Your task to perform on an android device: What's the weather? Image 0: 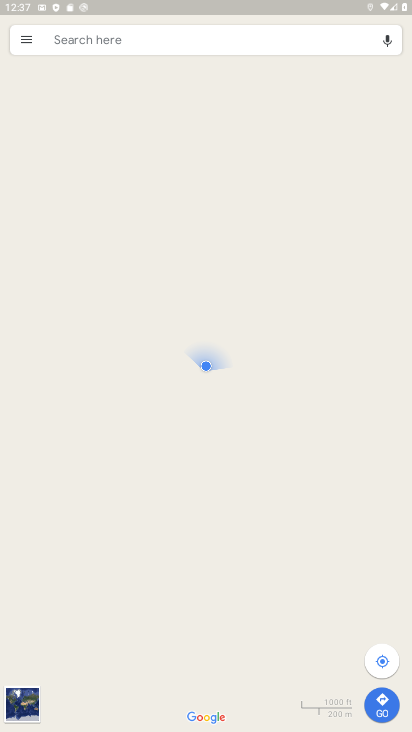
Step 0: press home button
Your task to perform on an android device: What's the weather? Image 1: 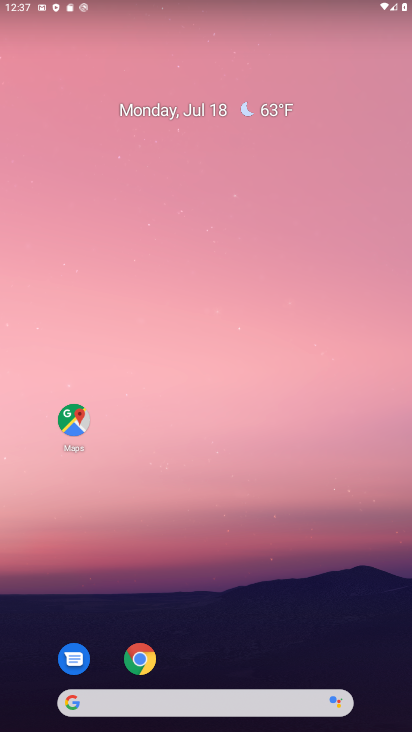
Step 1: drag from (187, 698) to (208, 299)
Your task to perform on an android device: What's the weather? Image 2: 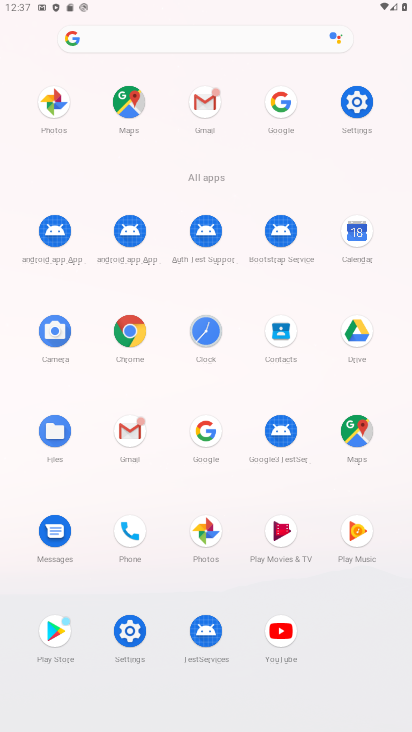
Step 2: click (276, 105)
Your task to perform on an android device: What's the weather? Image 3: 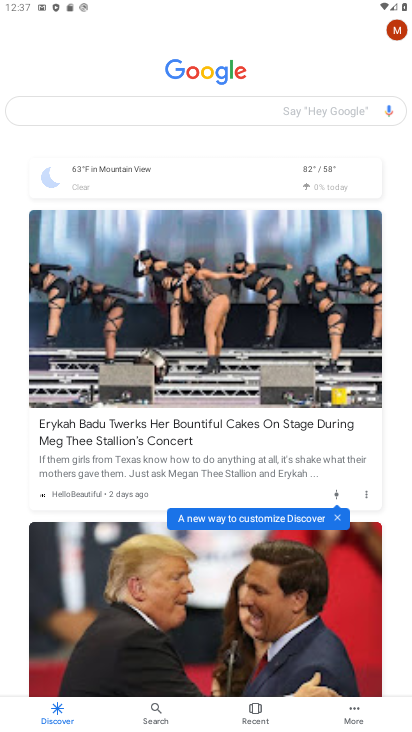
Step 3: click (158, 117)
Your task to perform on an android device: What's the weather? Image 4: 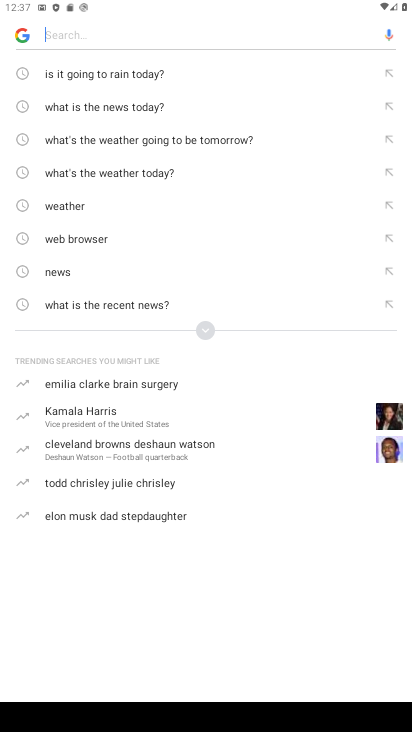
Step 4: click (106, 172)
Your task to perform on an android device: What's the weather? Image 5: 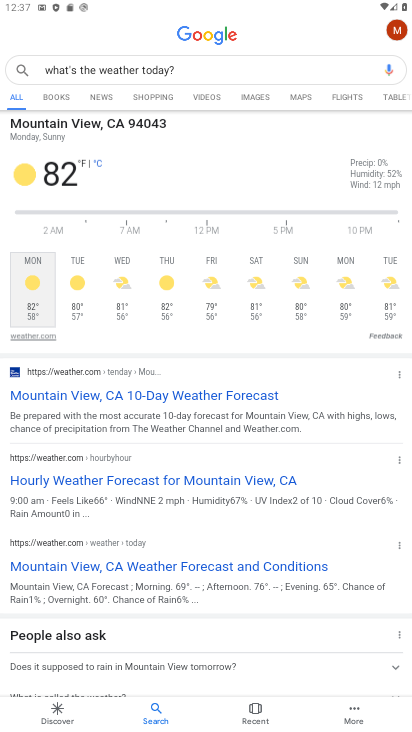
Step 5: task complete